Your task to perform on an android device: Do I have any events today? Image 0: 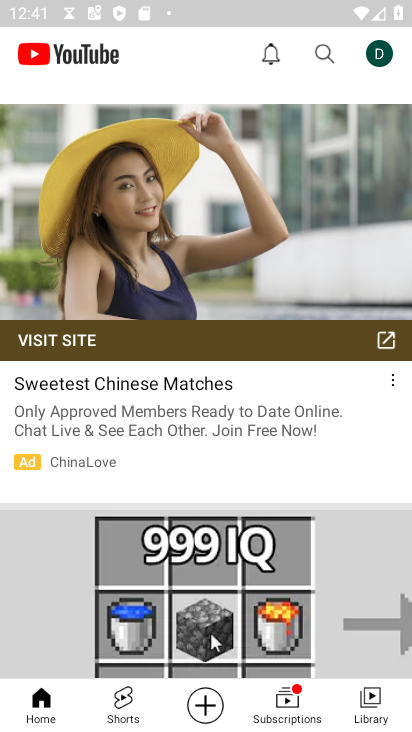
Step 0: press home button
Your task to perform on an android device: Do I have any events today? Image 1: 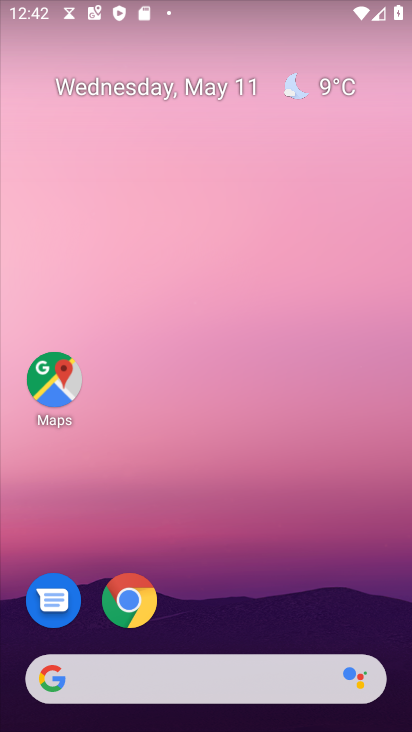
Step 1: drag from (296, 604) to (264, 124)
Your task to perform on an android device: Do I have any events today? Image 2: 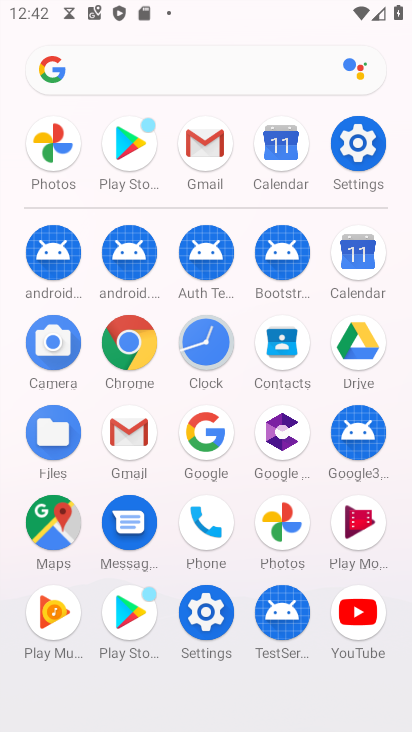
Step 2: click (360, 249)
Your task to perform on an android device: Do I have any events today? Image 3: 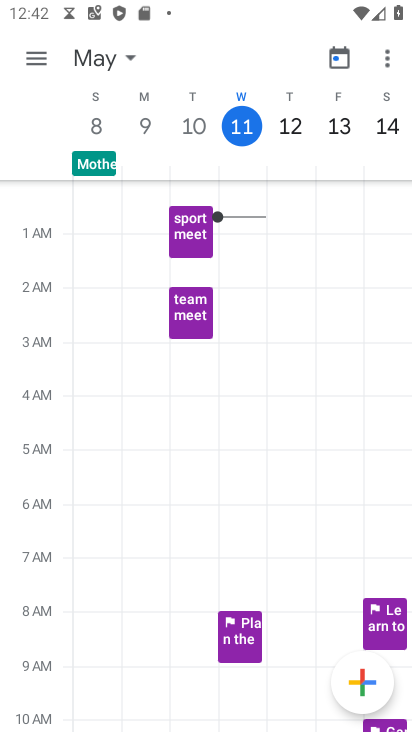
Step 3: task complete